Your task to perform on an android device: Go to notification settings Image 0: 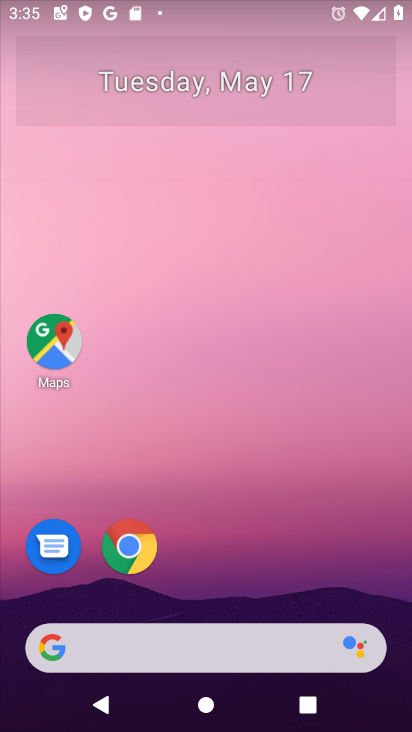
Step 0: drag from (400, 667) to (390, 292)
Your task to perform on an android device: Go to notification settings Image 1: 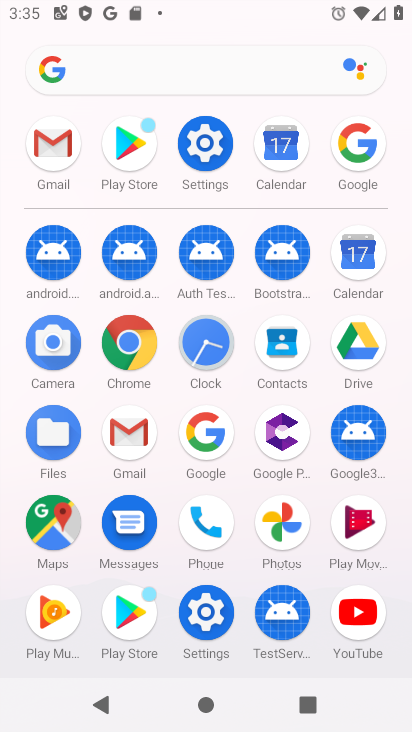
Step 1: click (198, 145)
Your task to perform on an android device: Go to notification settings Image 2: 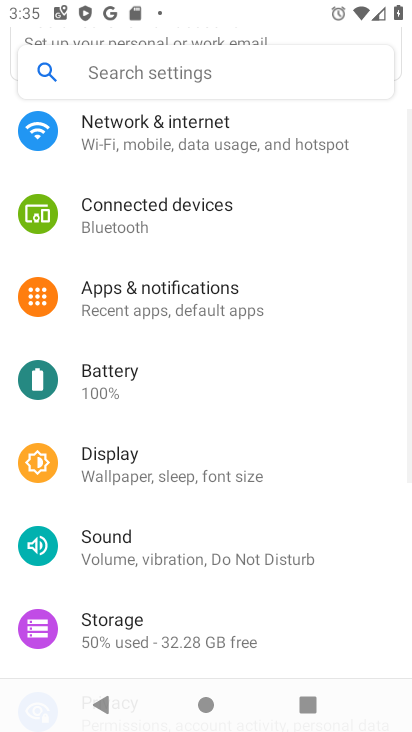
Step 2: click (111, 291)
Your task to perform on an android device: Go to notification settings Image 3: 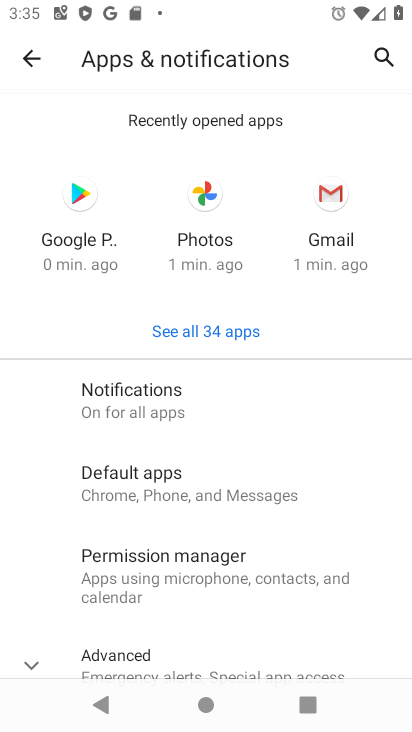
Step 3: click (113, 395)
Your task to perform on an android device: Go to notification settings Image 4: 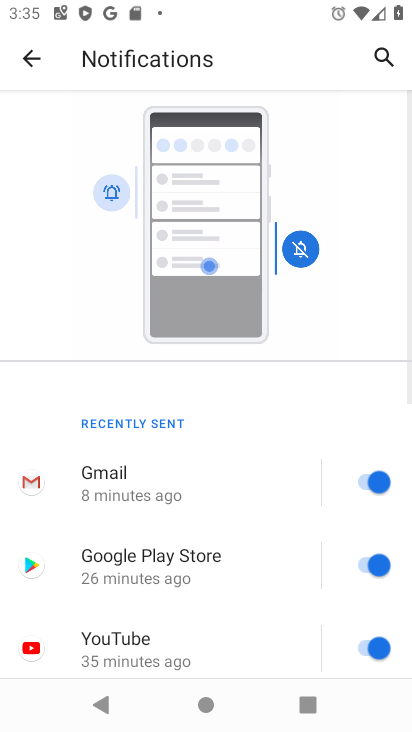
Step 4: task complete